Your task to perform on an android device: Go to Maps Image 0: 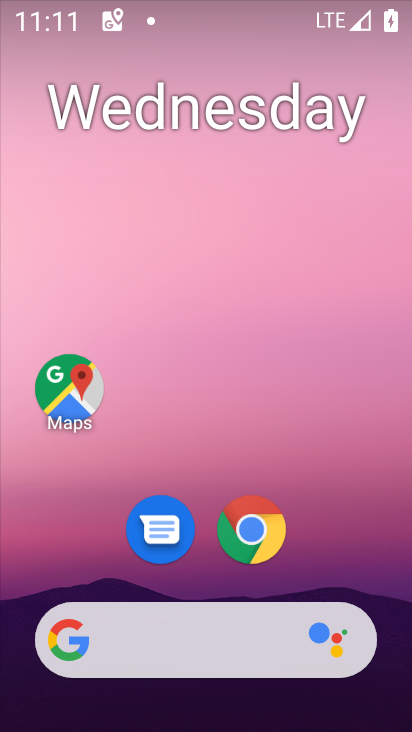
Step 0: click (71, 388)
Your task to perform on an android device: Go to Maps Image 1: 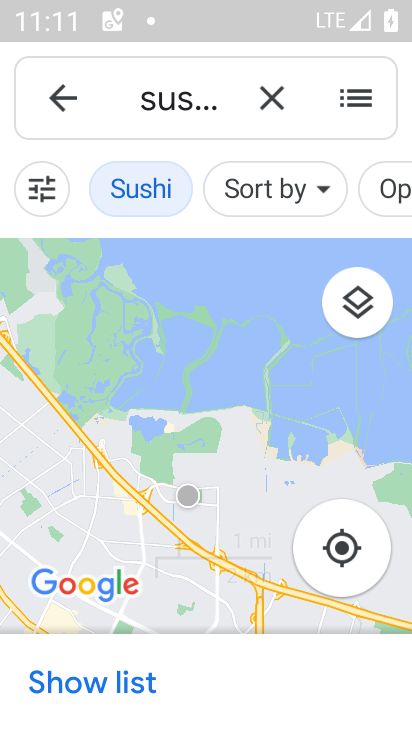
Step 1: click (265, 91)
Your task to perform on an android device: Go to Maps Image 2: 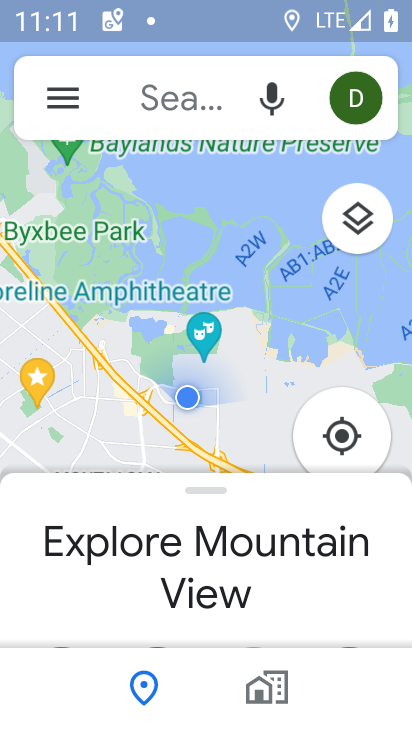
Step 2: task complete